Your task to perform on an android device: install app "Airtel Thanks" Image 0: 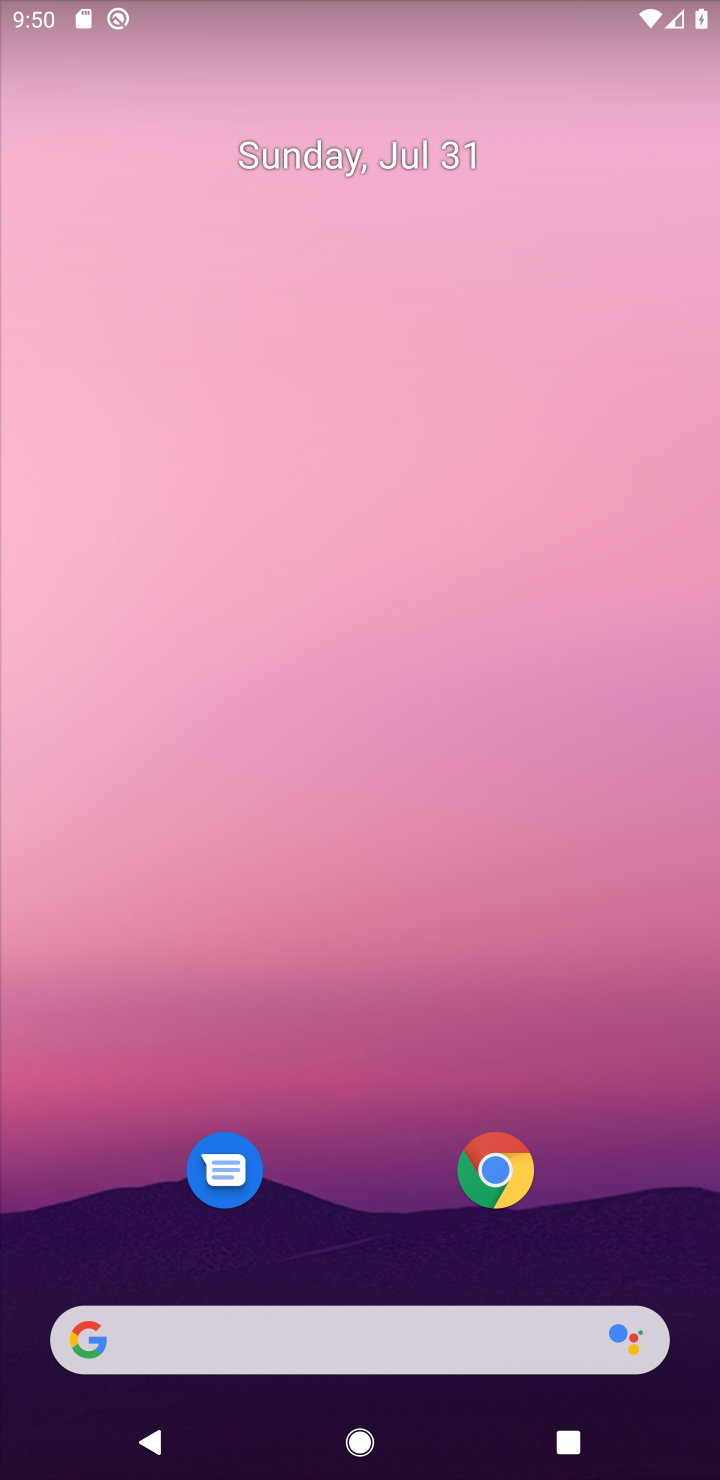
Step 0: drag from (687, 1294) to (353, 0)
Your task to perform on an android device: install app "Airtel Thanks" Image 1: 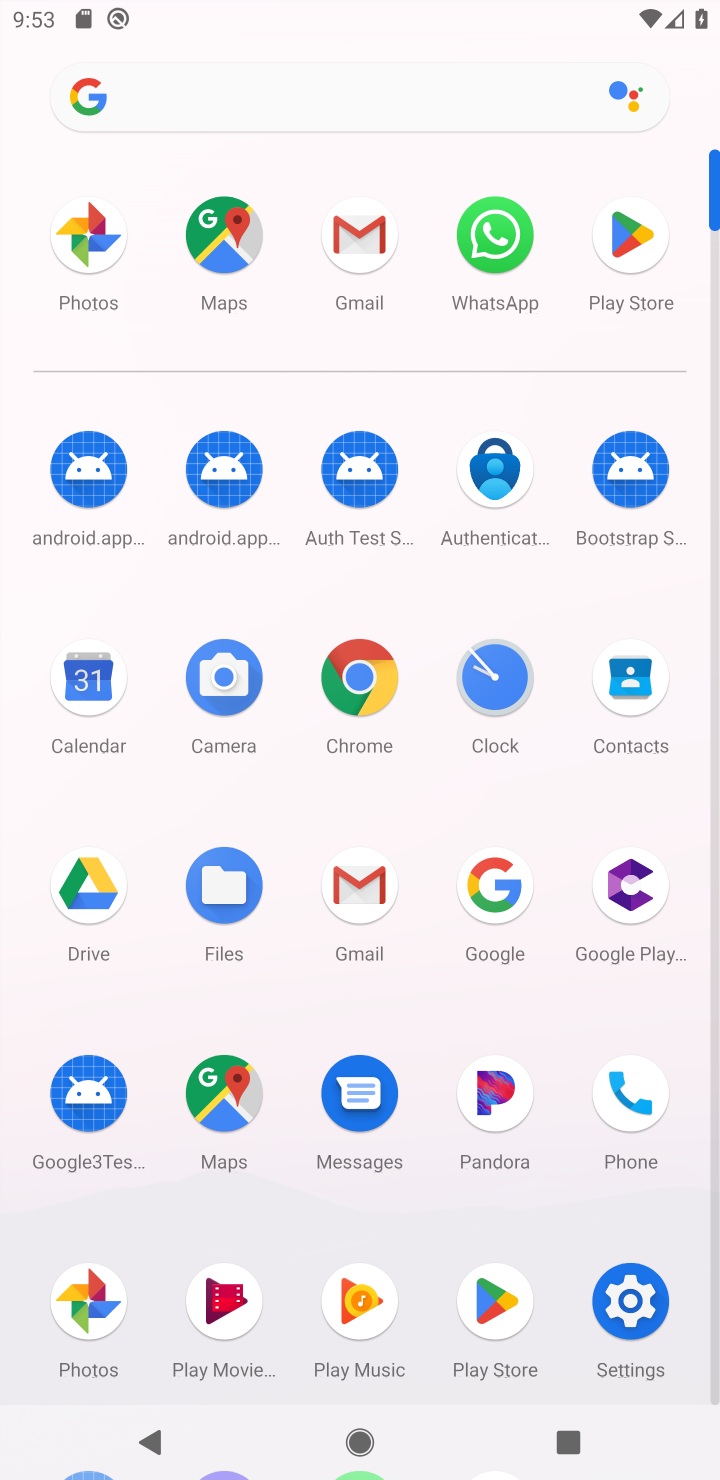
Step 1: click (635, 237)
Your task to perform on an android device: install app "Airtel Thanks" Image 2: 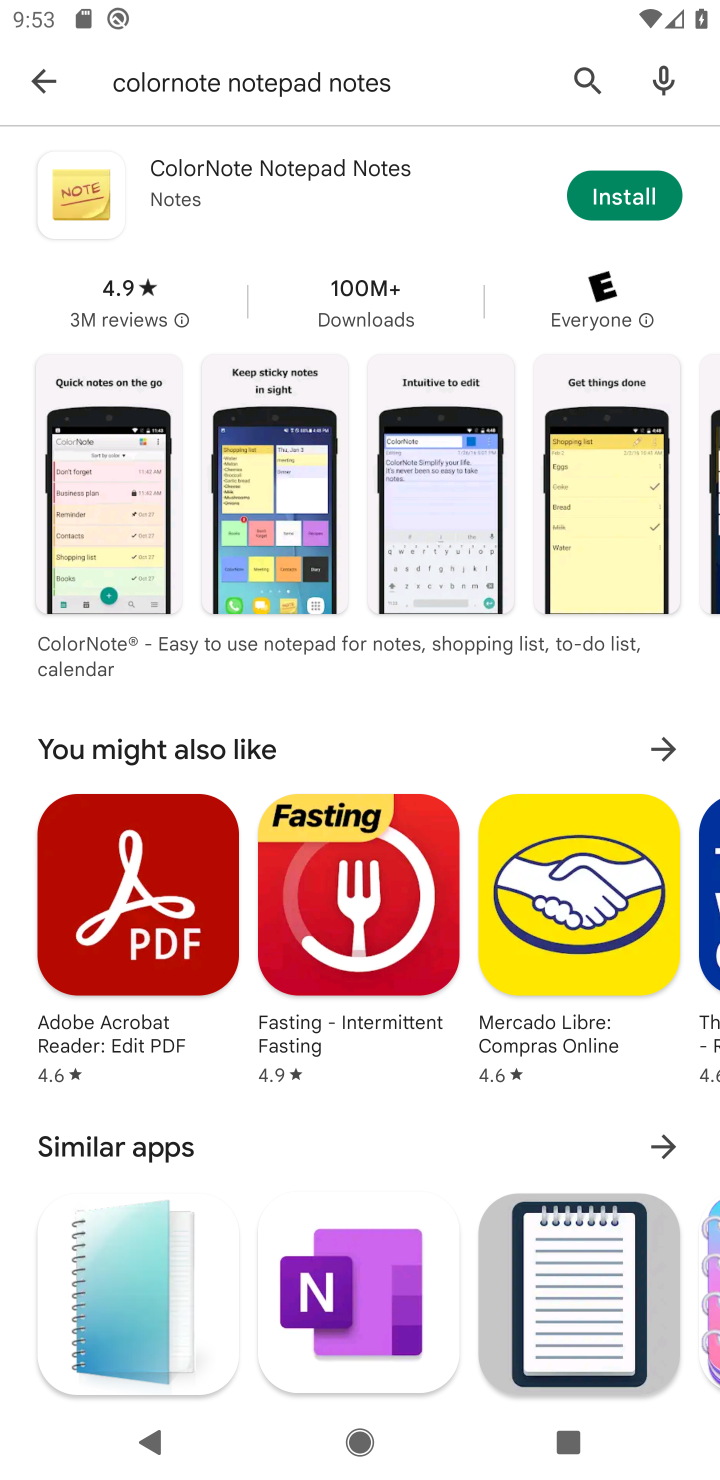
Step 2: press back button
Your task to perform on an android device: install app "Airtel Thanks" Image 3: 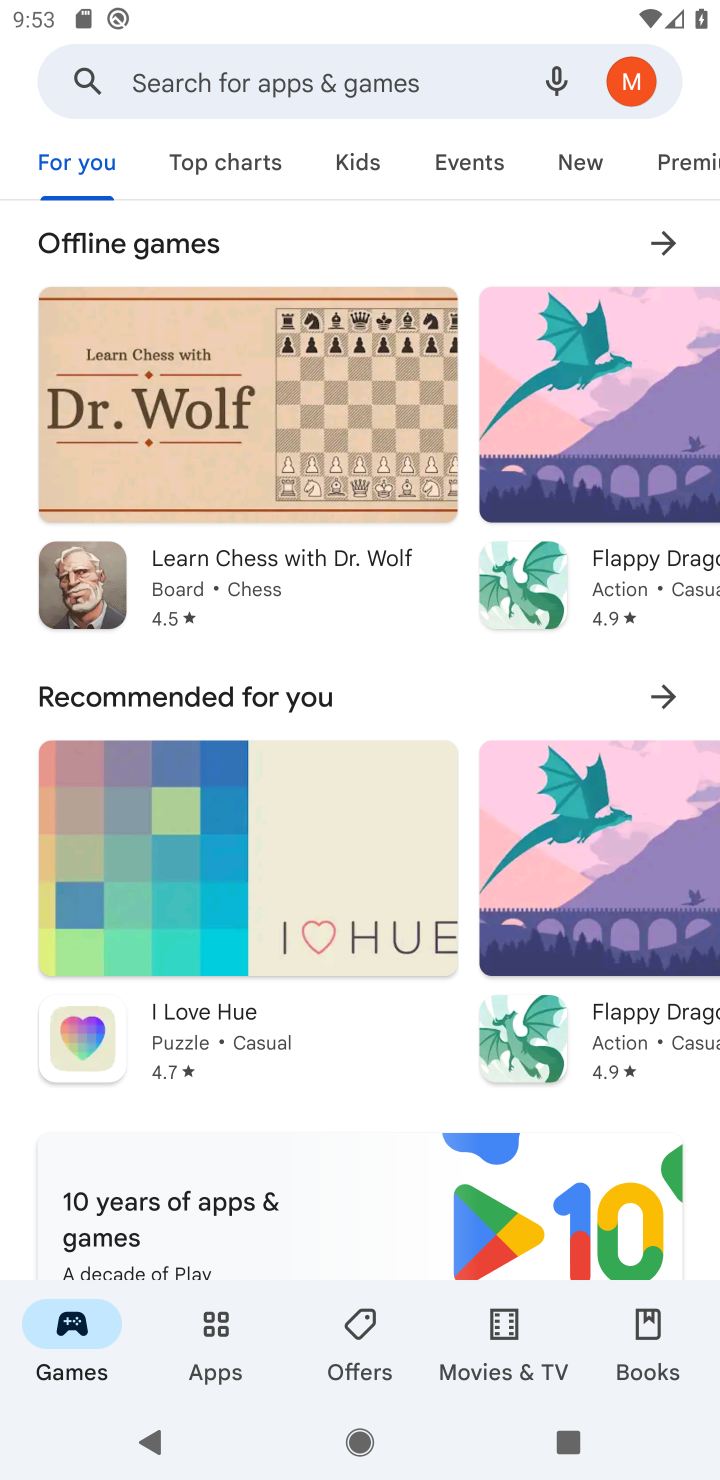
Step 3: click (255, 78)
Your task to perform on an android device: install app "Airtel Thanks" Image 4: 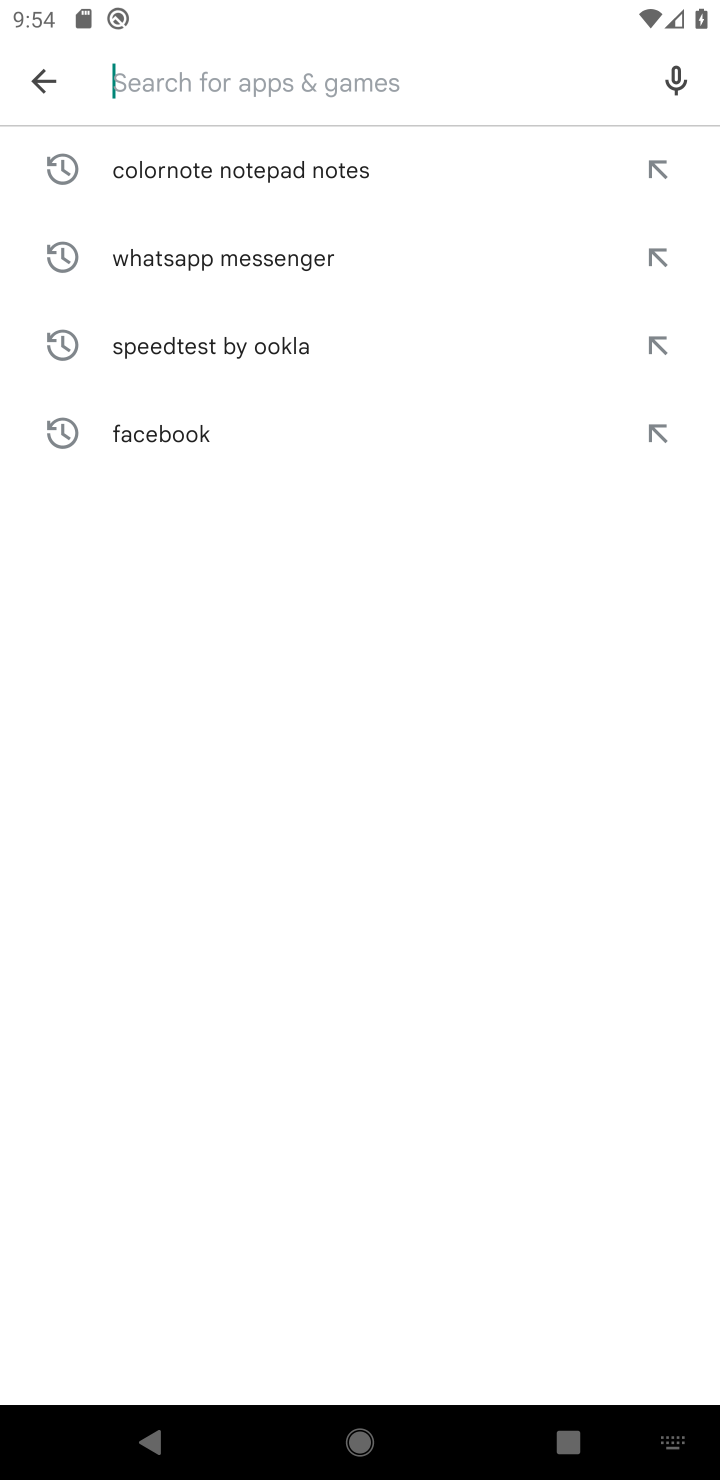
Step 4: type "Airtel Thanks"
Your task to perform on an android device: install app "Airtel Thanks" Image 5: 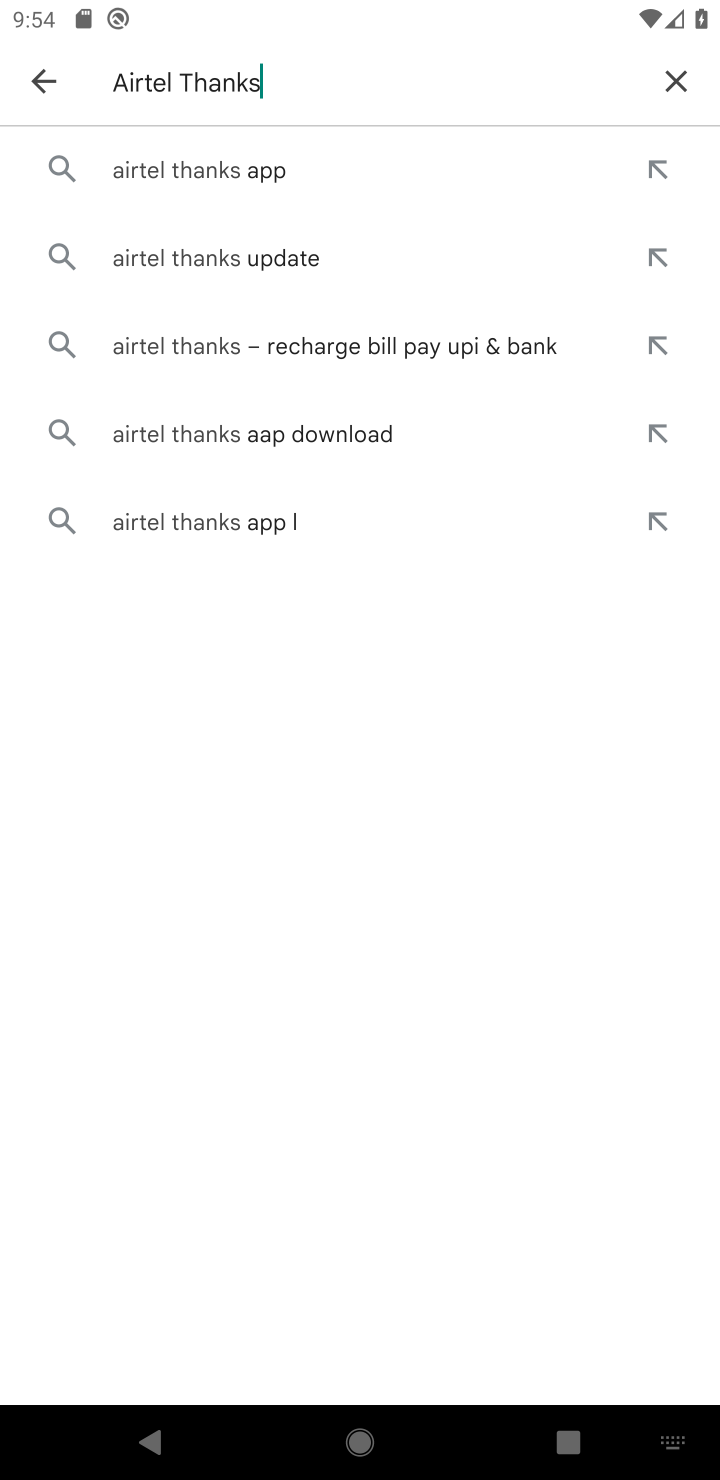
Step 5: click (200, 172)
Your task to perform on an android device: install app "Airtel Thanks" Image 6: 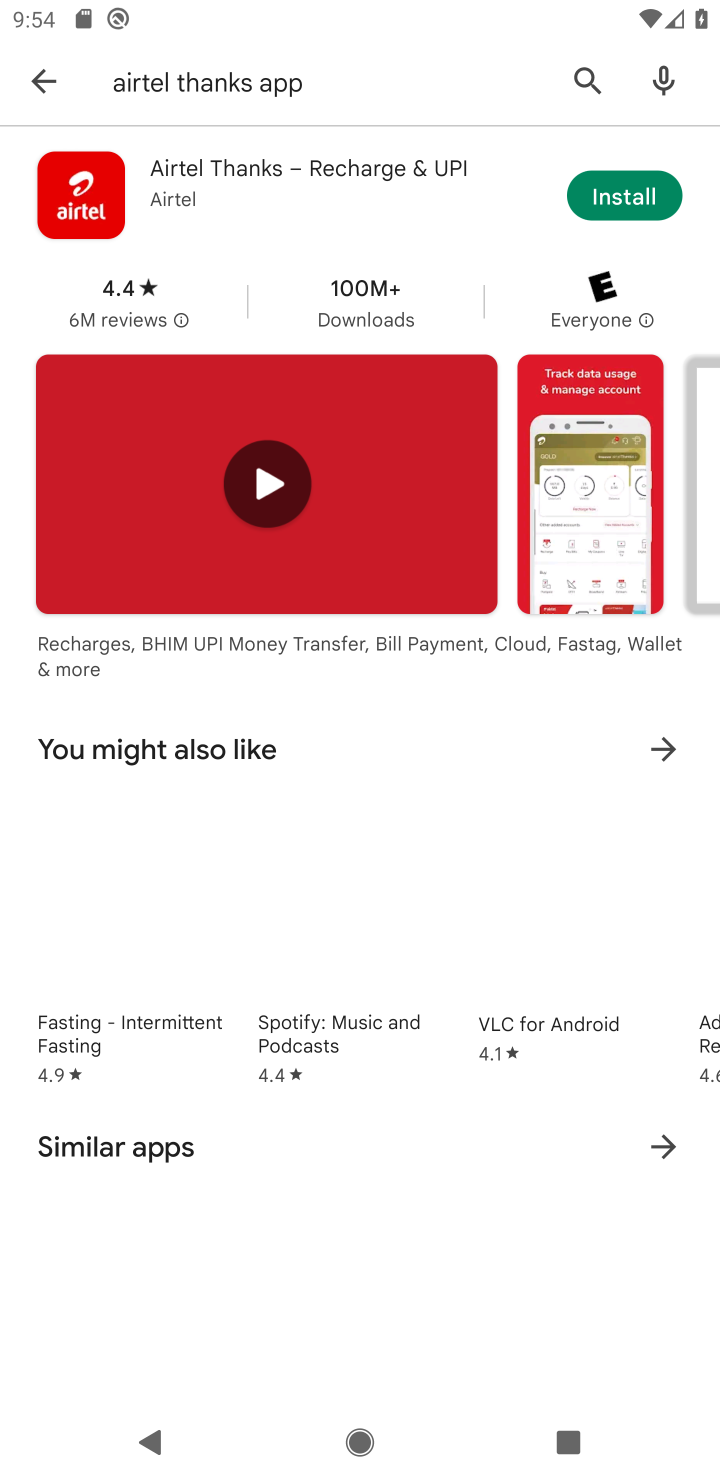
Step 6: click (618, 197)
Your task to perform on an android device: install app "Airtel Thanks" Image 7: 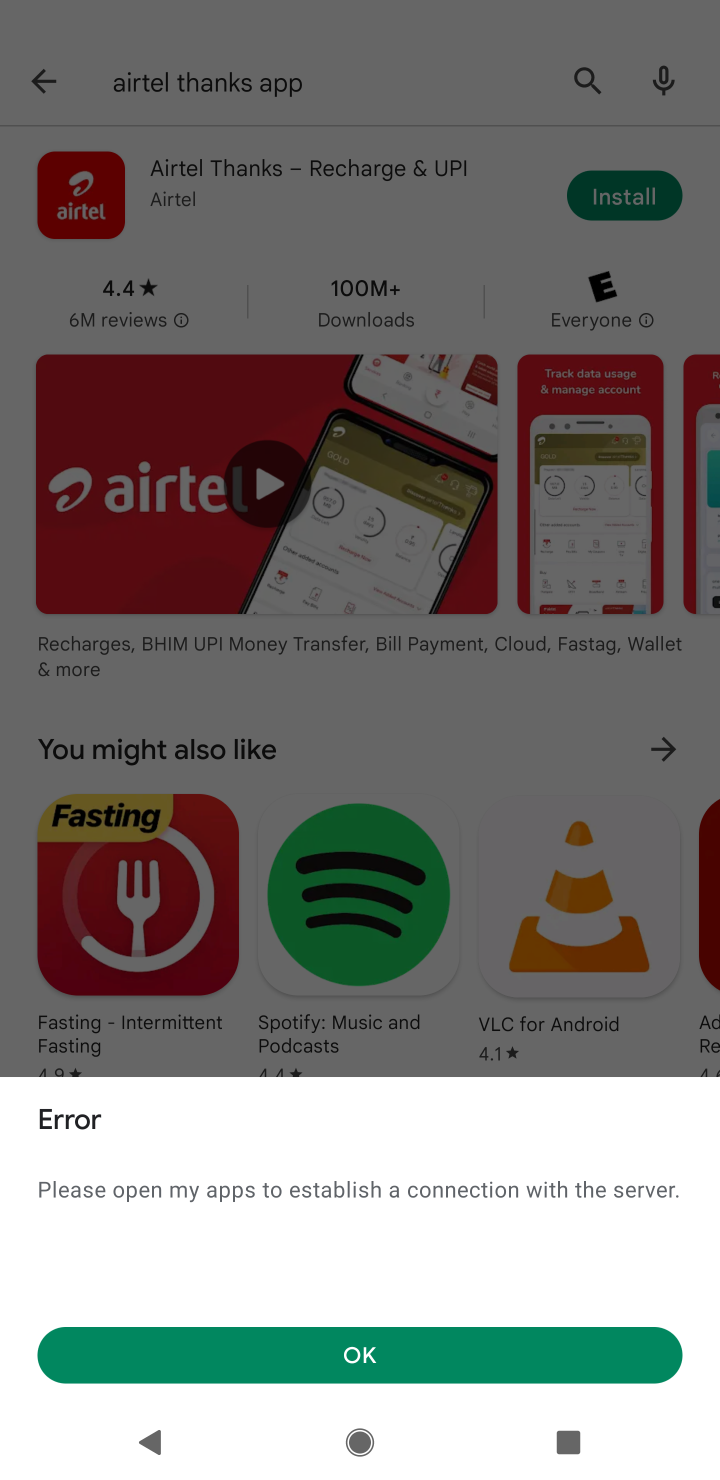
Step 7: task complete